Your task to perform on an android device: turn off wifi Image 0: 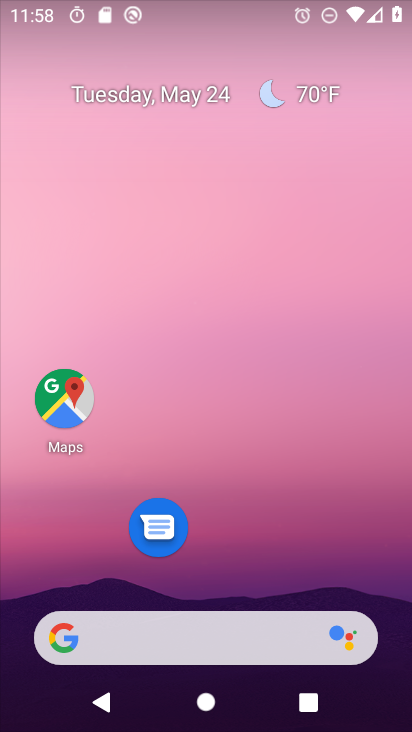
Step 0: drag from (207, 549) to (286, 112)
Your task to perform on an android device: turn off wifi Image 1: 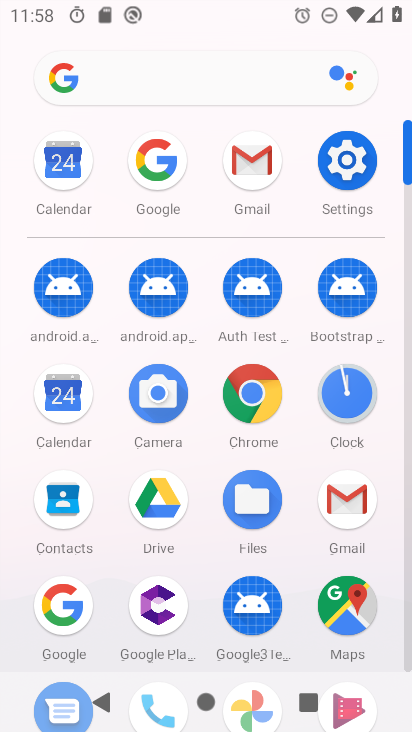
Step 1: click (348, 158)
Your task to perform on an android device: turn off wifi Image 2: 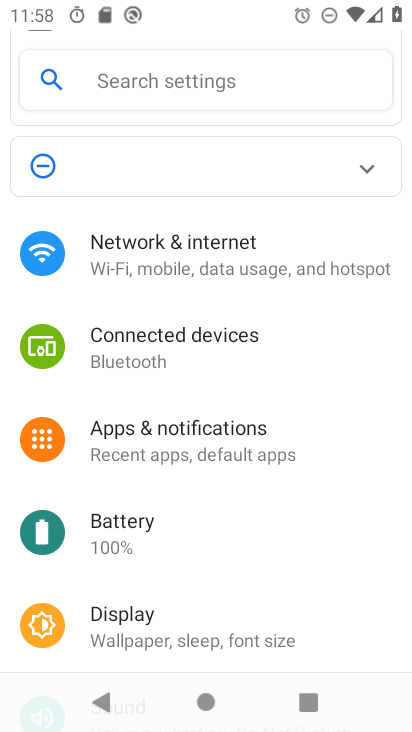
Step 2: click (181, 272)
Your task to perform on an android device: turn off wifi Image 3: 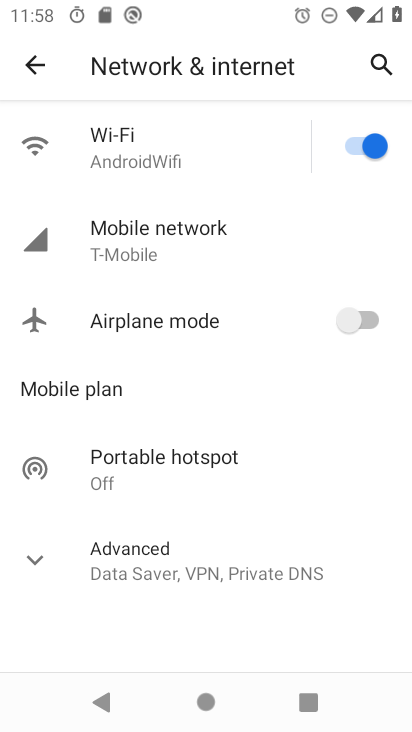
Step 3: click (373, 149)
Your task to perform on an android device: turn off wifi Image 4: 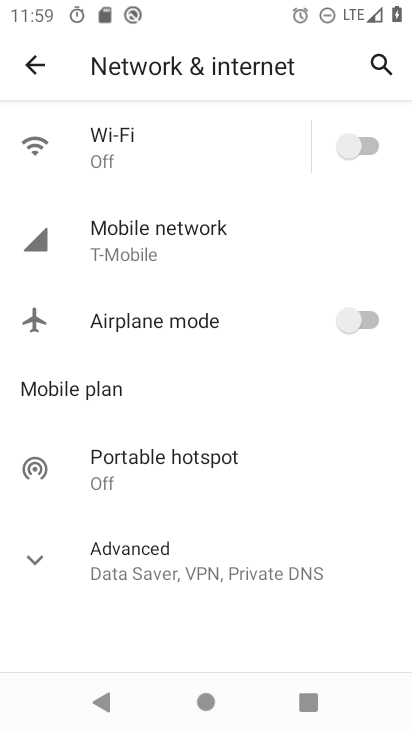
Step 4: task complete